Your task to perform on an android device: Open wifi settings Image 0: 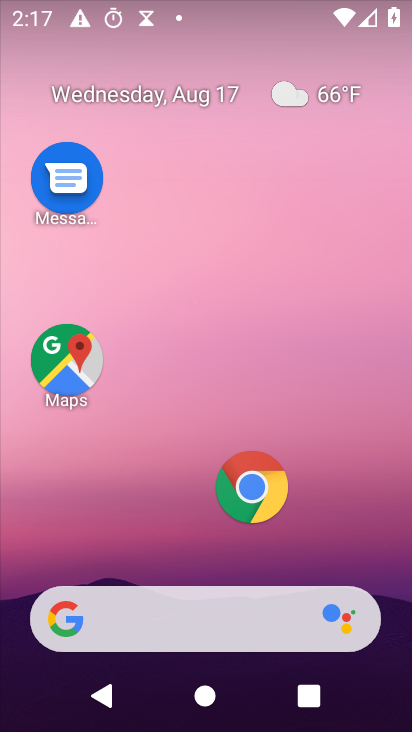
Step 0: press home button
Your task to perform on an android device: Open wifi settings Image 1: 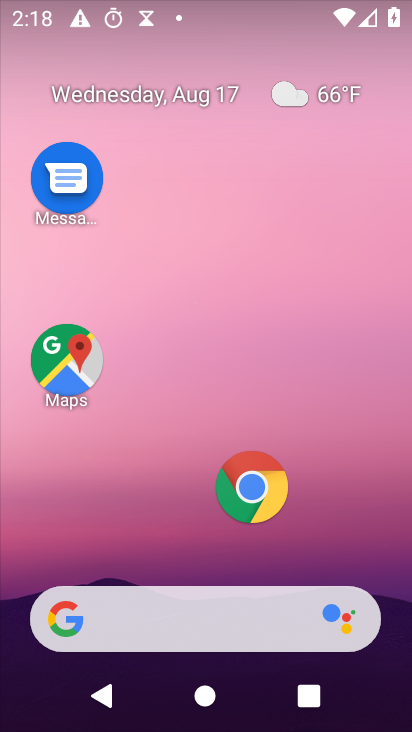
Step 1: drag from (210, 287) to (250, 2)
Your task to perform on an android device: Open wifi settings Image 2: 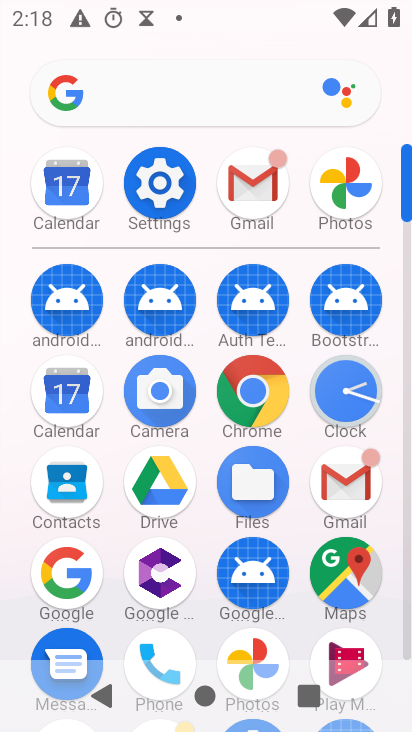
Step 2: click (152, 201)
Your task to perform on an android device: Open wifi settings Image 3: 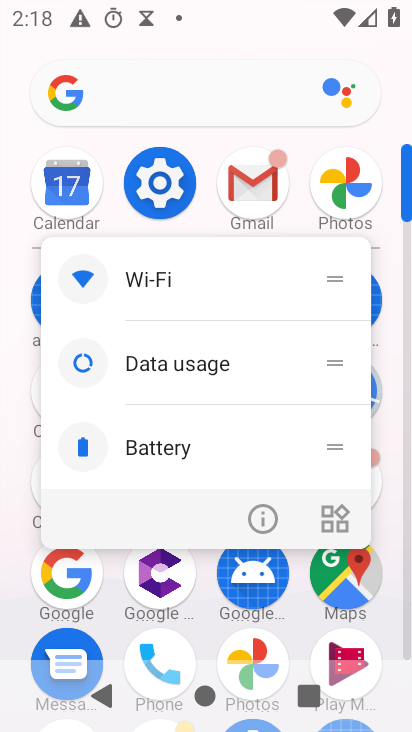
Step 3: click (153, 295)
Your task to perform on an android device: Open wifi settings Image 4: 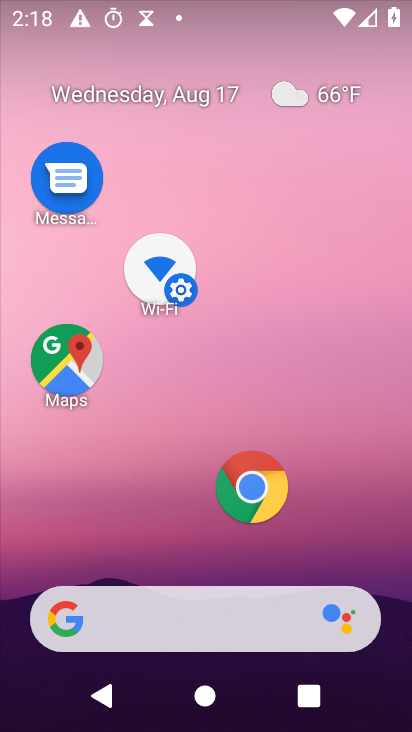
Step 4: drag from (221, 553) to (162, 65)
Your task to perform on an android device: Open wifi settings Image 5: 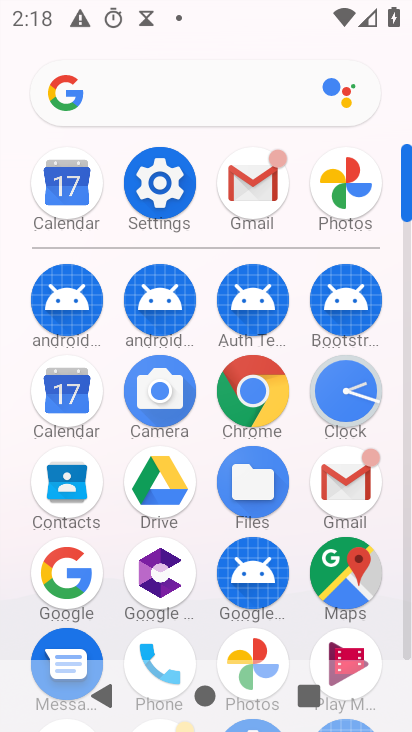
Step 5: click (160, 203)
Your task to perform on an android device: Open wifi settings Image 6: 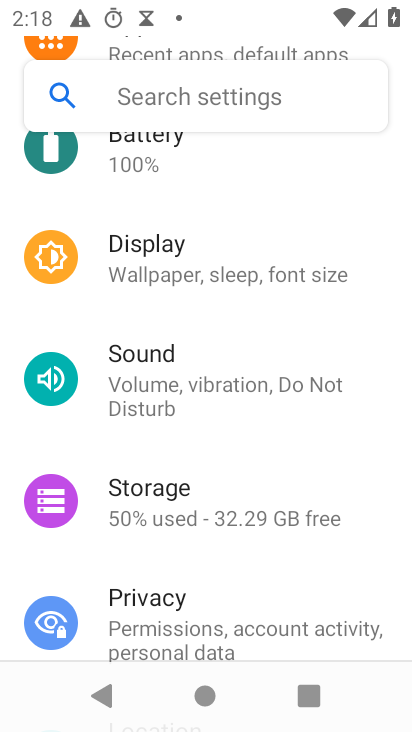
Step 6: drag from (310, 179) to (375, 728)
Your task to perform on an android device: Open wifi settings Image 7: 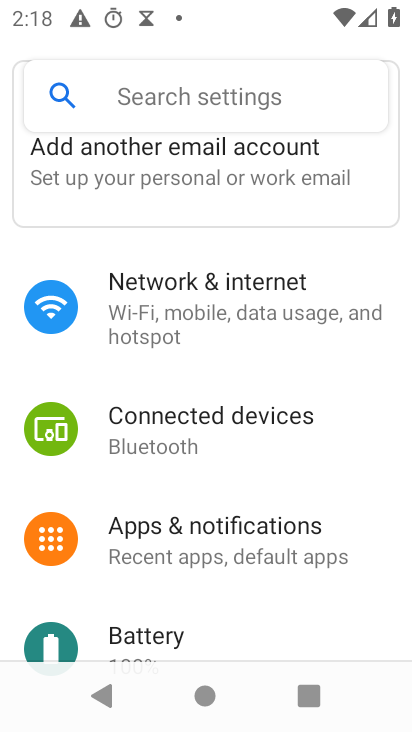
Step 7: click (222, 306)
Your task to perform on an android device: Open wifi settings Image 8: 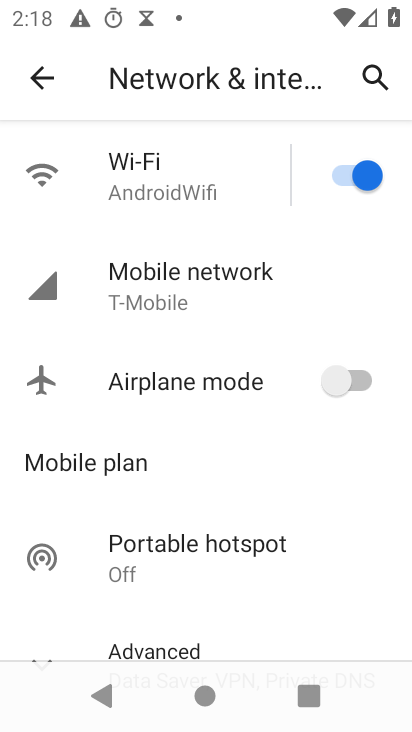
Step 8: click (150, 174)
Your task to perform on an android device: Open wifi settings Image 9: 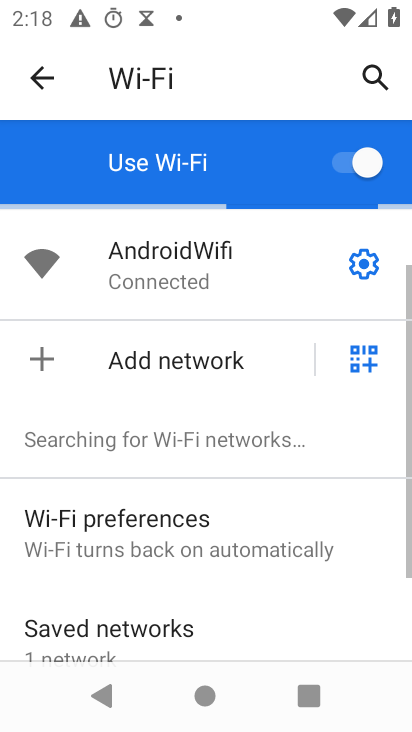
Step 9: click (180, 265)
Your task to perform on an android device: Open wifi settings Image 10: 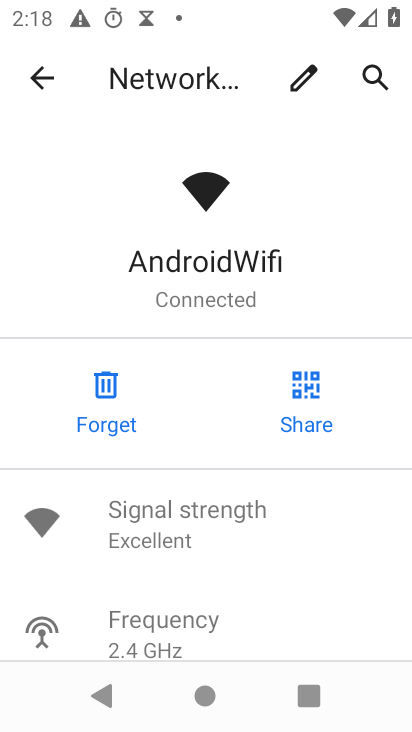
Step 10: task complete